Your task to perform on an android device: Open internet settings Image 0: 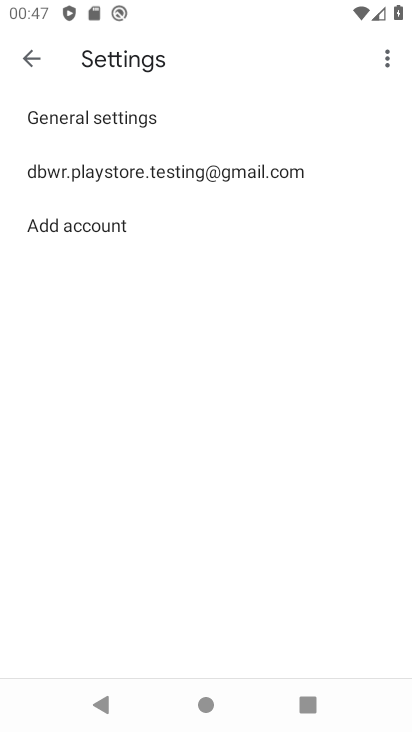
Step 0: press home button
Your task to perform on an android device: Open internet settings Image 1: 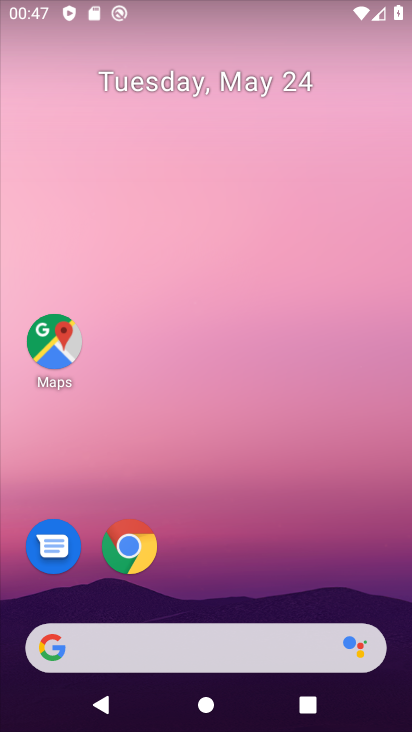
Step 1: drag from (349, 678) to (323, 50)
Your task to perform on an android device: Open internet settings Image 2: 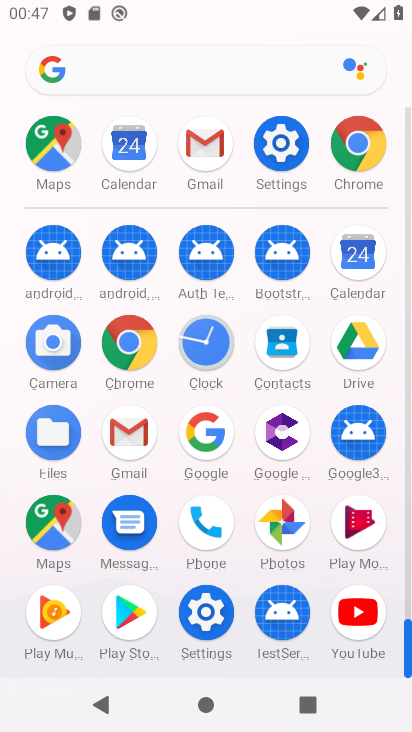
Step 2: click (274, 129)
Your task to perform on an android device: Open internet settings Image 3: 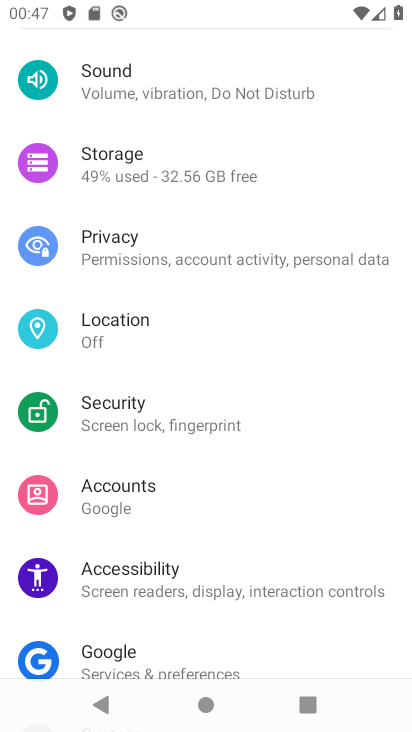
Step 3: drag from (255, 158) to (272, 676)
Your task to perform on an android device: Open internet settings Image 4: 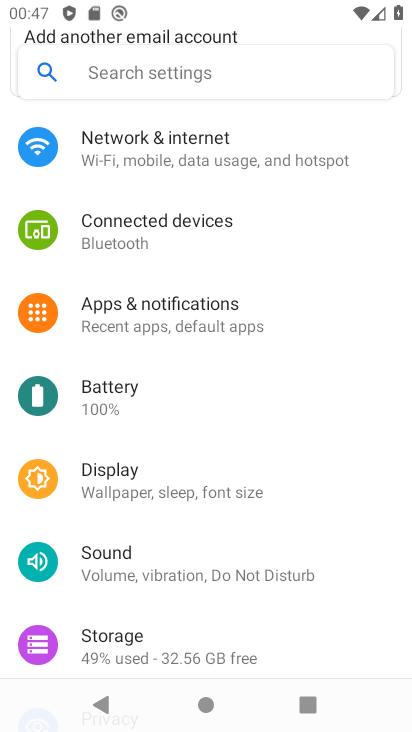
Step 4: drag from (193, 270) to (211, 602)
Your task to perform on an android device: Open internet settings Image 5: 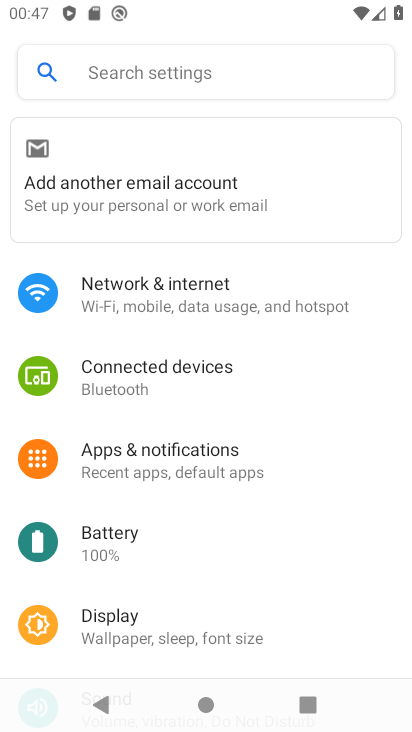
Step 5: click (236, 301)
Your task to perform on an android device: Open internet settings Image 6: 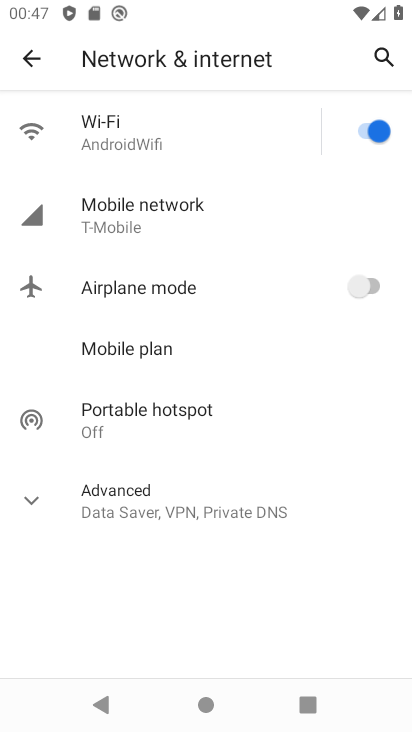
Step 6: task complete